Your task to perform on an android device: Add "amazon basics triple a" to the cart on newegg Image 0: 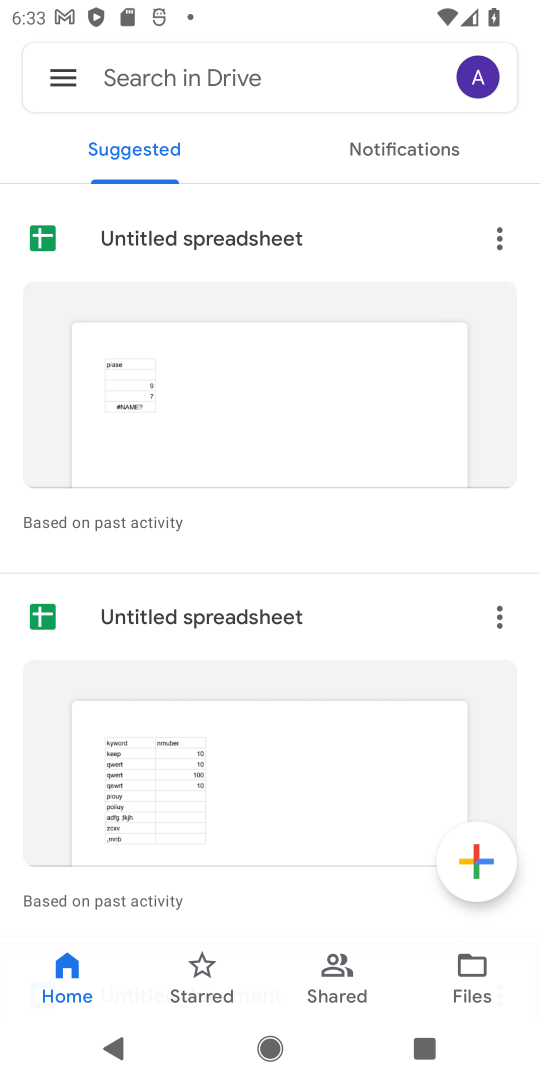
Step 0: press home button
Your task to perform on an android device: Add "amazon basics triple a" to the cart on newegg Image 1: 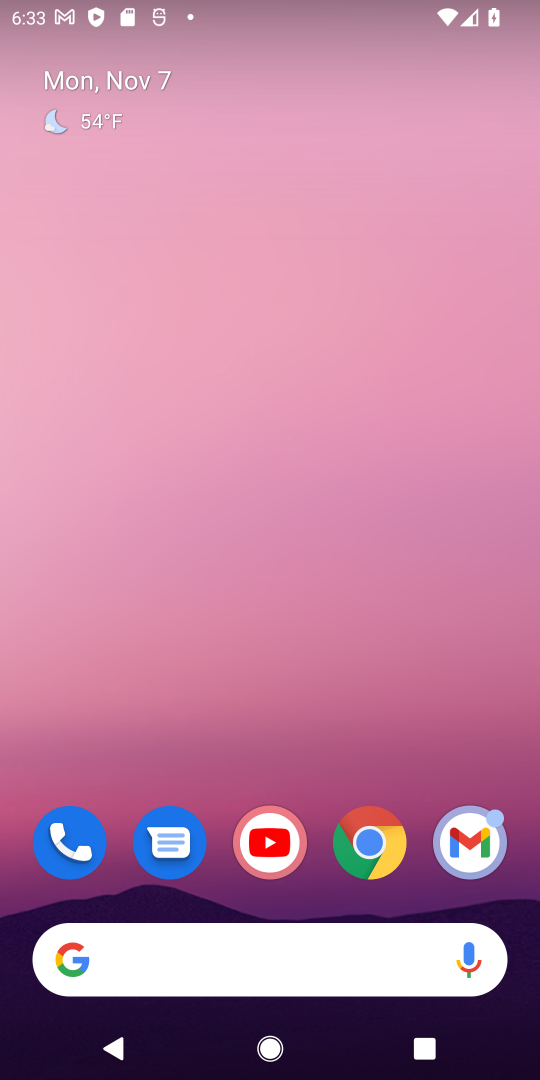
Step 1: click (370, 832)
Your task to perform on an android device: Add "amazon basics triple a" to the cart on newegg Image 2: 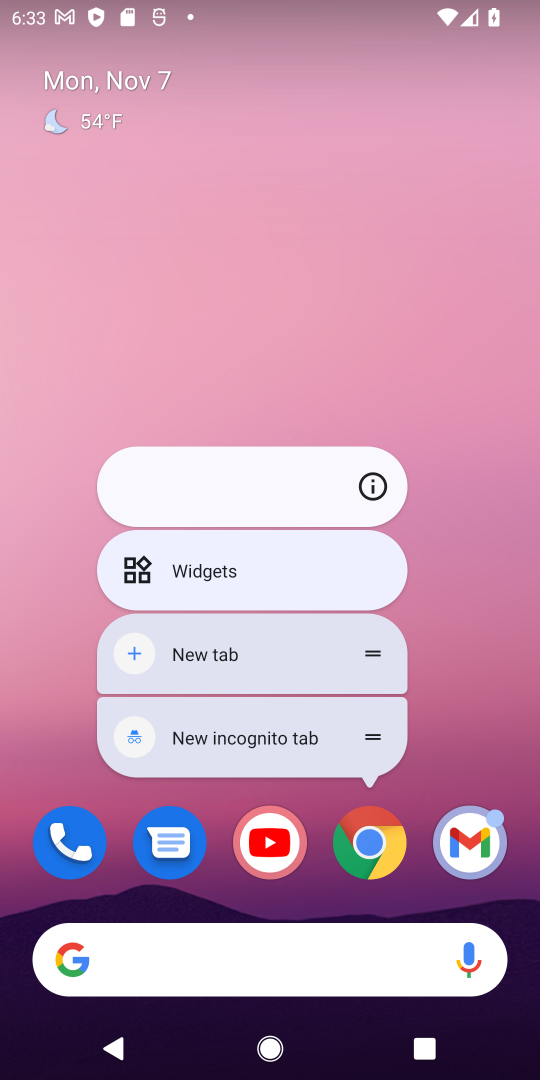
Step 2: click (360, 842)
Your task to perform on an android device: Add "amazon basics triple a" to the cart on newegg Image 3: 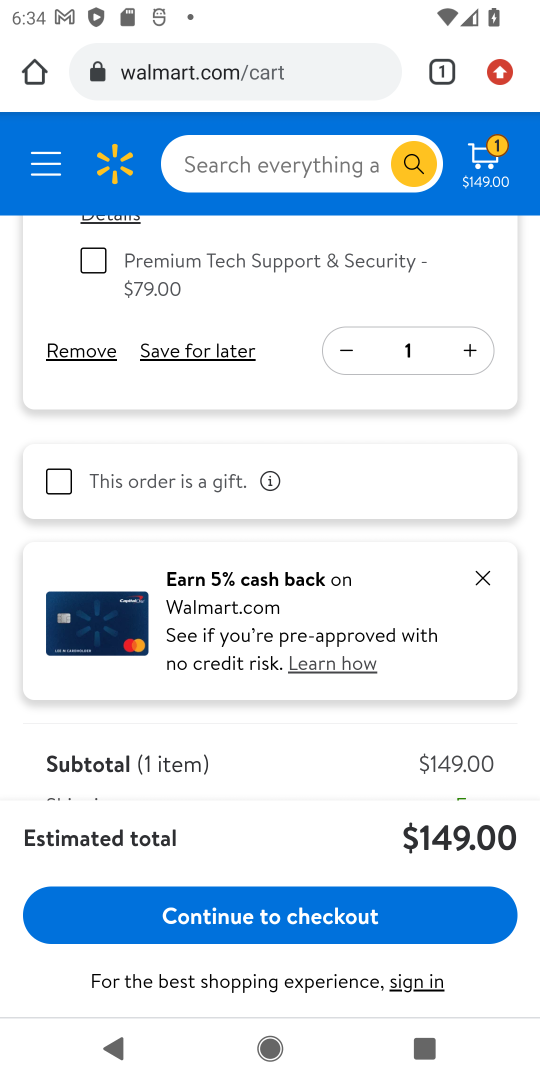
Step 3: click (291, 68)
Your task to perform on an android device: Add "amazon basics triple a" to the cart on newegg Image 4: 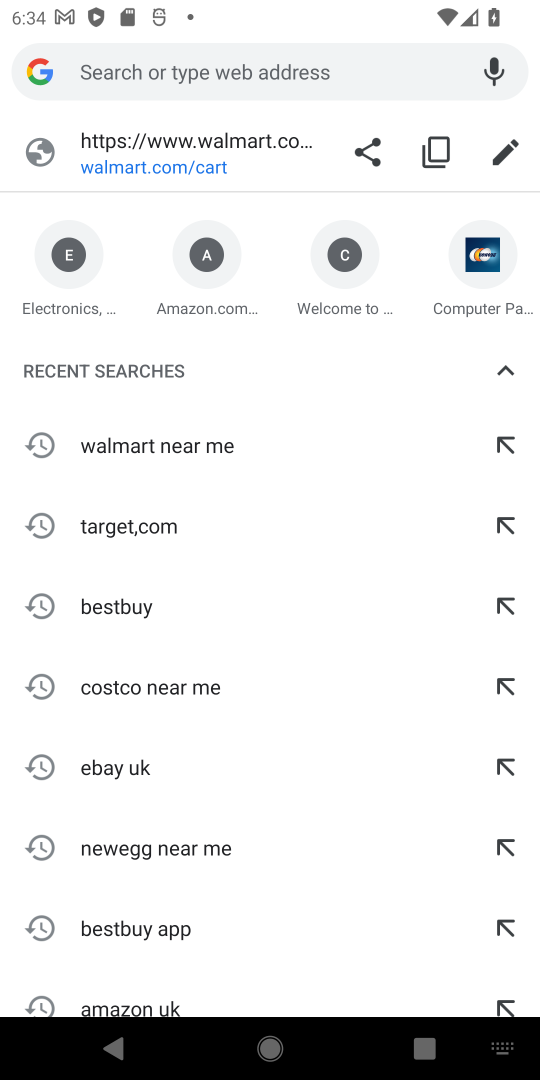
Step 4: type "newegg"
Your task to perform on an android device: Add "amazon basics triple a" to the cart on newegg Image 5: 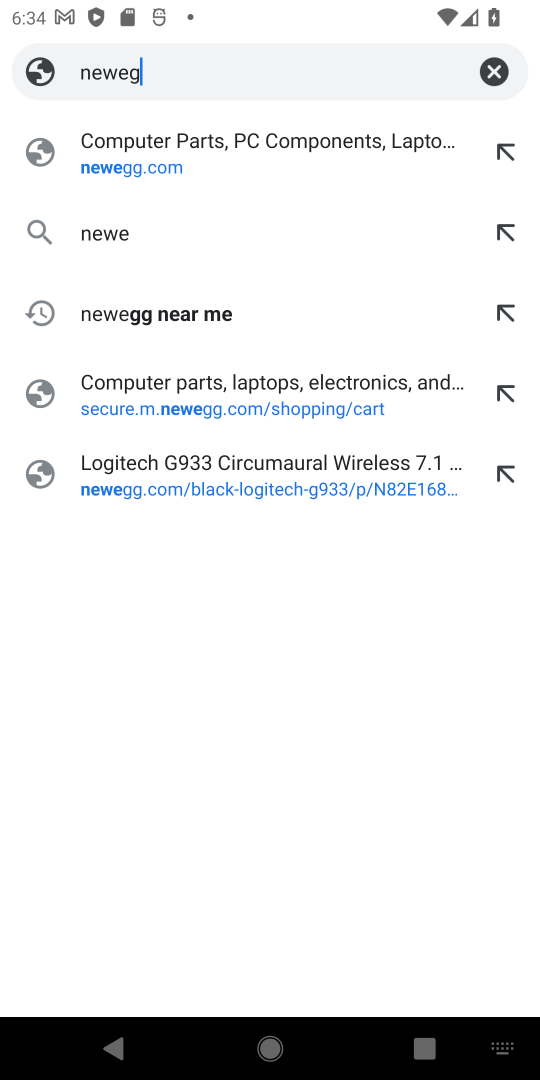
Step 5: press enter
Your task to perform on an android device: Add "amazon basics triple a" to the cart on newegg Image 6: 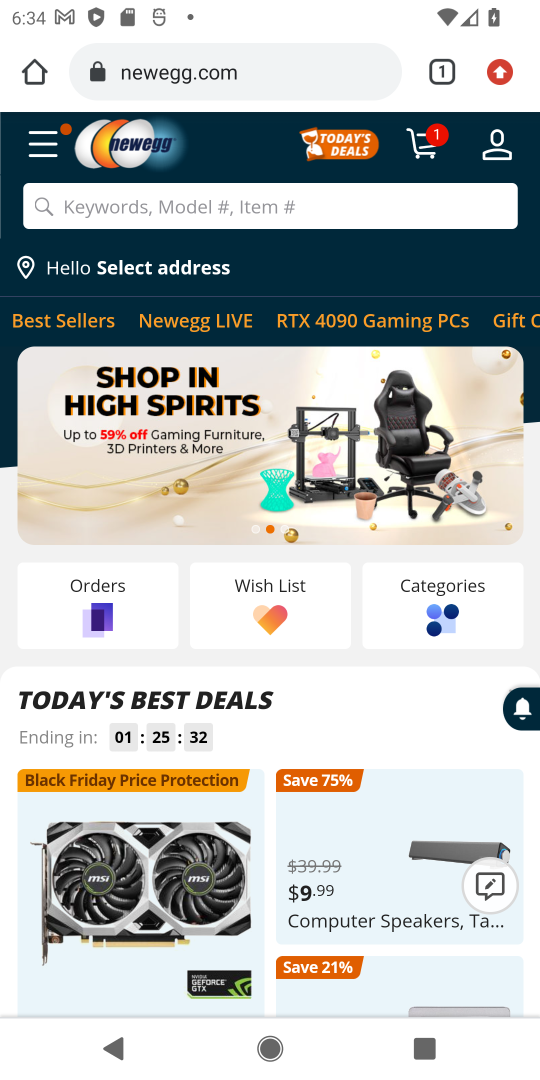
Step 6: click (204, 209)
Your task to perform on an android device: Add "amazon basics triple a" to the cart on newegg Image 7: 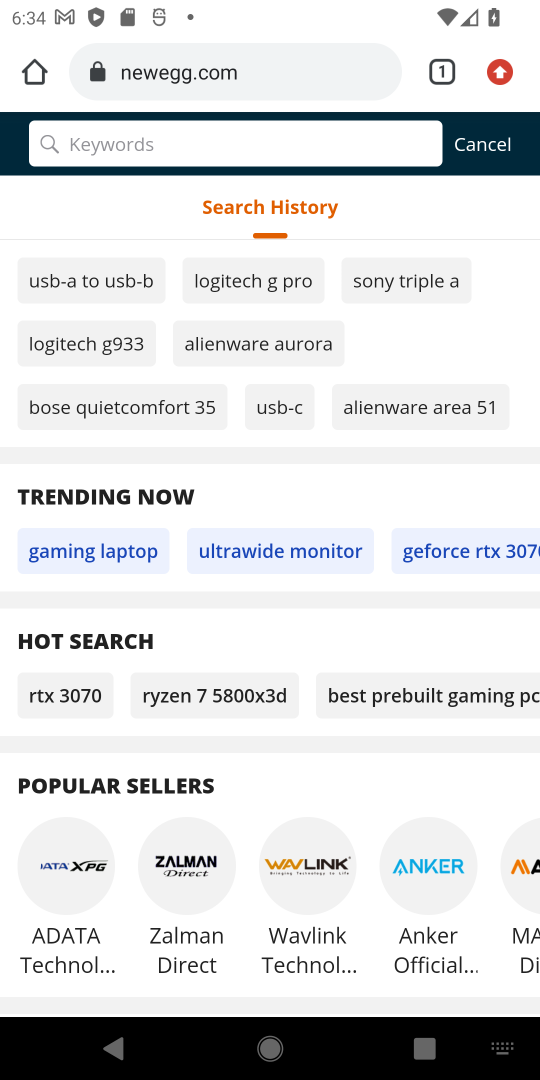
Step 7: type "amazon basics triple a"
Your task to perform on an android device: Add "amazon basics triple a" to the cart on newegg Image 8: 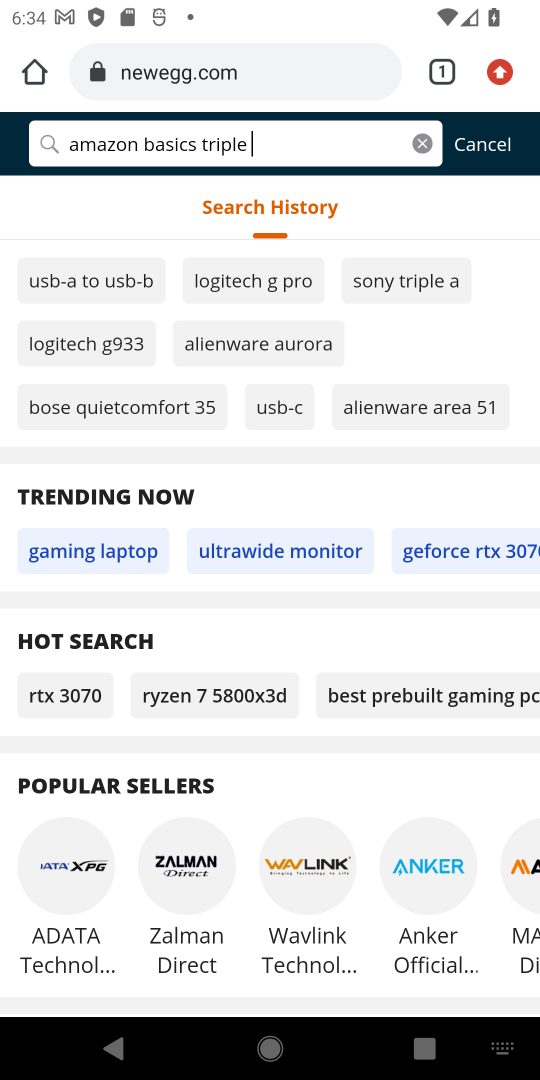
Step 8: press enter
Your task to perform on an android device: Add "amazon basics triple a" to the cart on newegg Image 9: 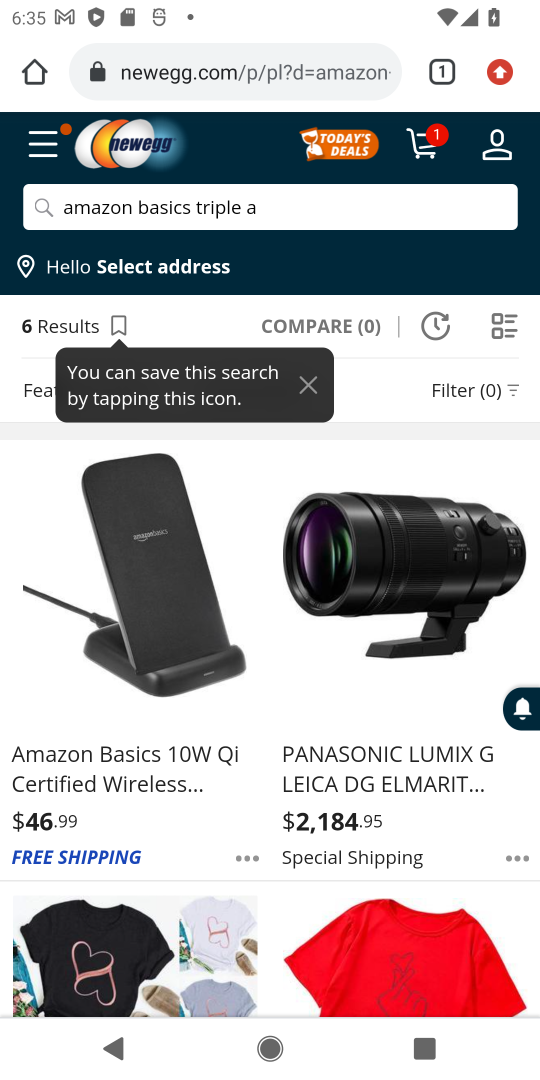
Step 9: click (122, 715)
Your task to perform on an android device: Add "amazon basics triple a" to the cart on newegg Image 10: 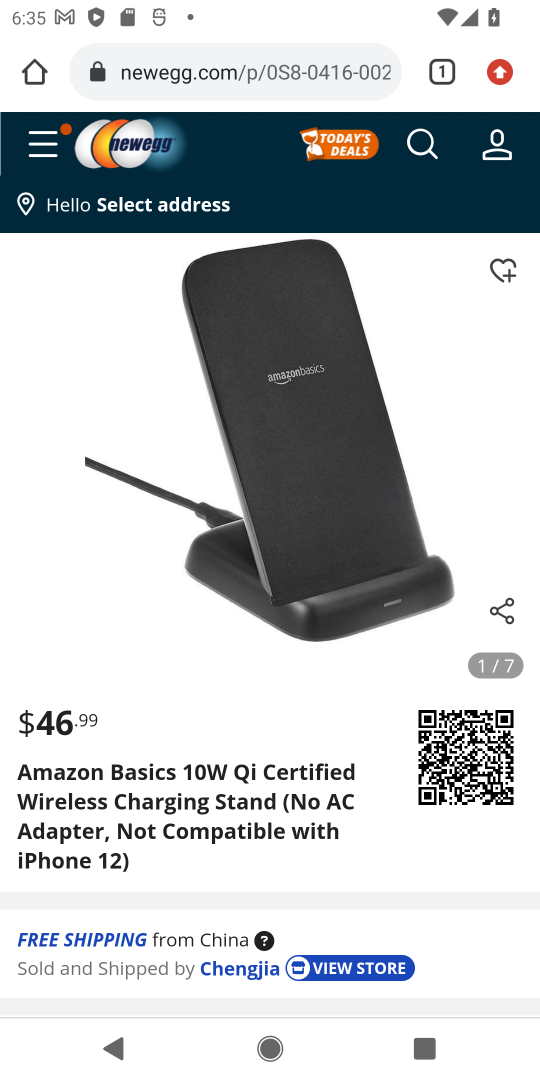
Step 10: task complete